Your task to perform on an android device: check storage Image 0: 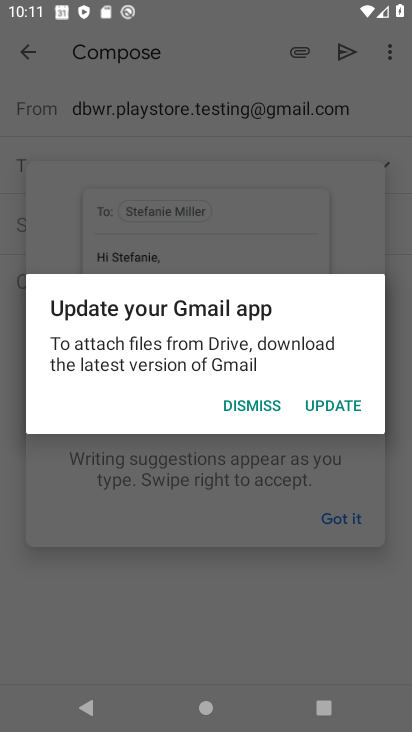
Step 0: press home button
Your task to perform on an android device: check storage Image 1: 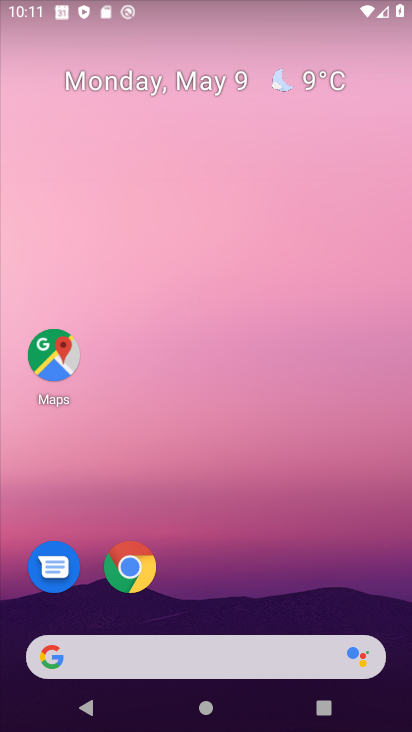
Step 1: drag from (213, 604) to (216, 9)
Your task to perform on an android device: check storage Image 2: 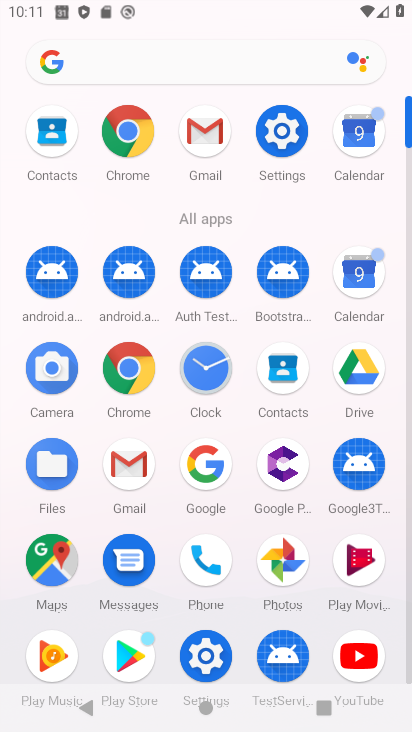
Step 2: click (281, 129)
Your task to perform on an android device: check storage Image 3: 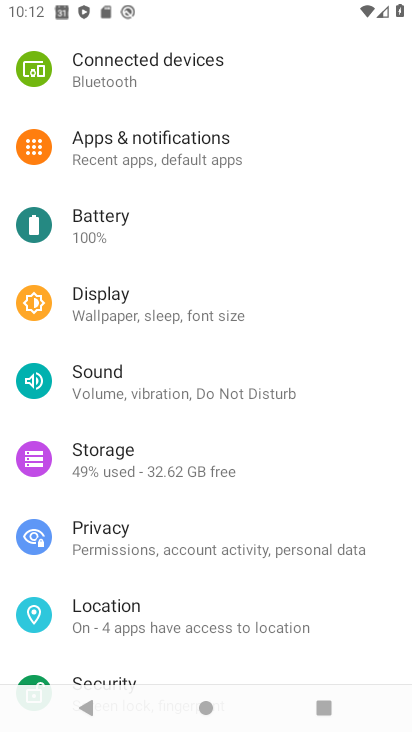
Step 3: click (147, 456)
Your task to perform on an android device: check storage Image 4: 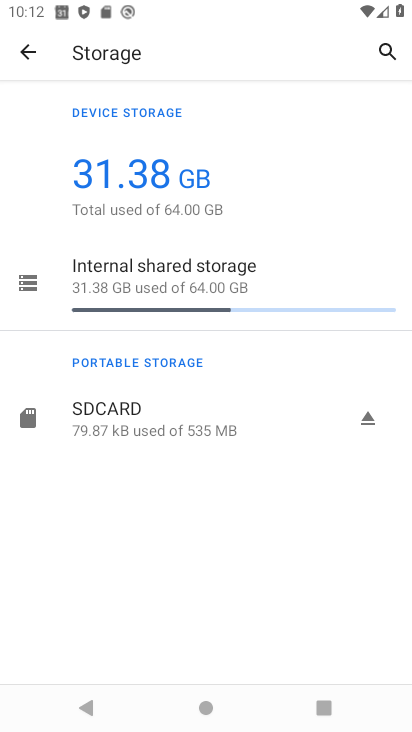
Step 4: task complete